Your task to perform on an android device: Open calendar and show me the fourth week of next month Image 0: 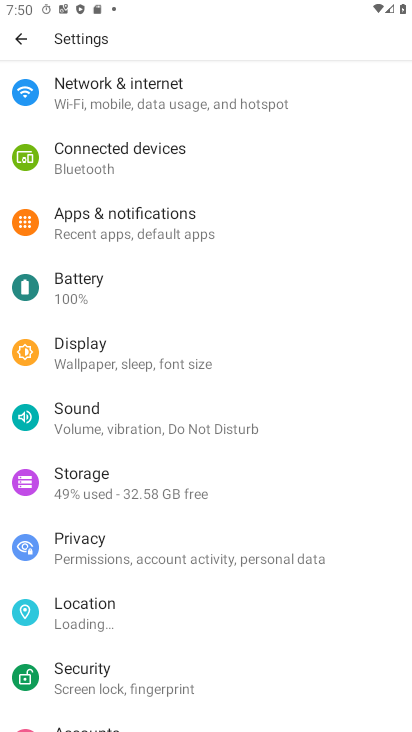
Step 0: press home button
Your task to perform on an android device: Open calendar and show me the fourth week of next month Image 1: 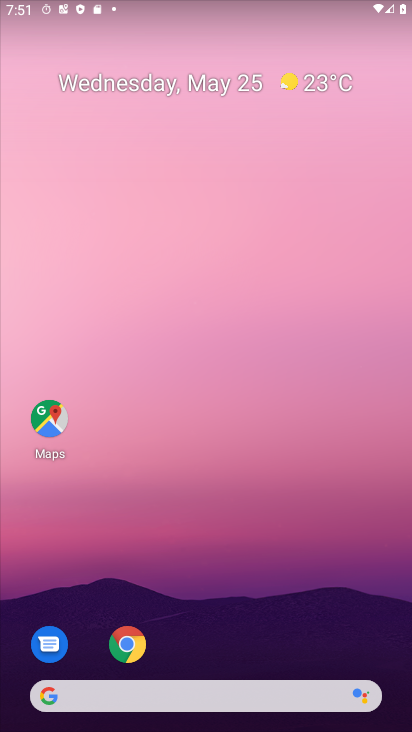
Step 1: drag from (229, 695) to (318, 149)
Your task to perform on an android device: Open calendar and show me the fourth week of next month Image 2: 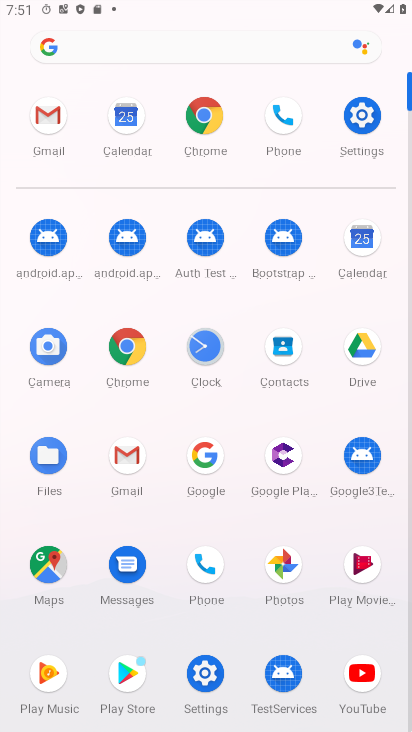
Step 2: click (353, 251)
Your task to perform on an android device: Open calendar and show me the fourth week of next month Image 3: 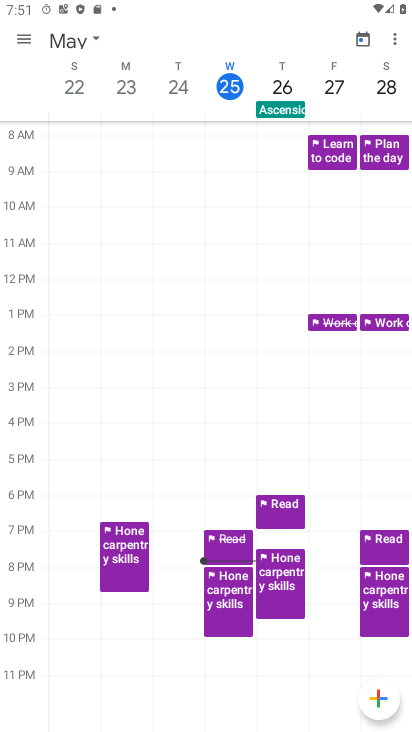
Step 3: click (22, 39)
Your task to perform on an android device: Open calendar and show me the fourth week of next month Image 4: 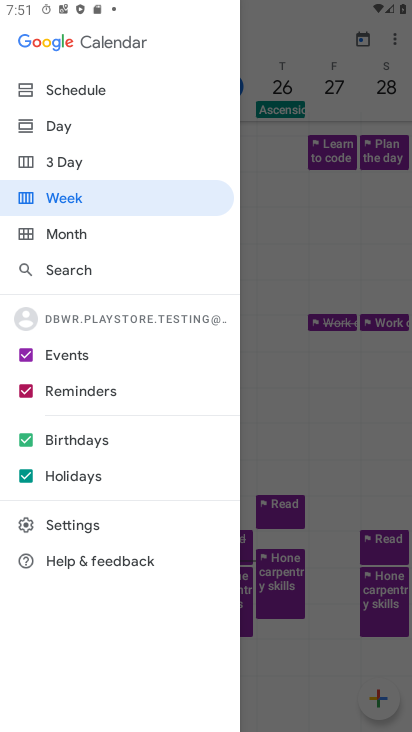
Step 4: click (86, 236)
Your task to perform on an android device: Open calendar and show me the fourth week of next month Image 5: 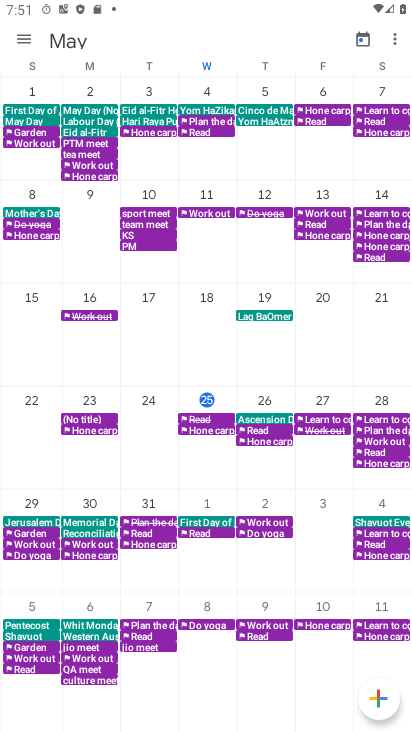
Step 5: drag from (373, 365) to (7, 315)
Your task to perform on an android device: Open calendar and show me the fourth week of next month Image 6: 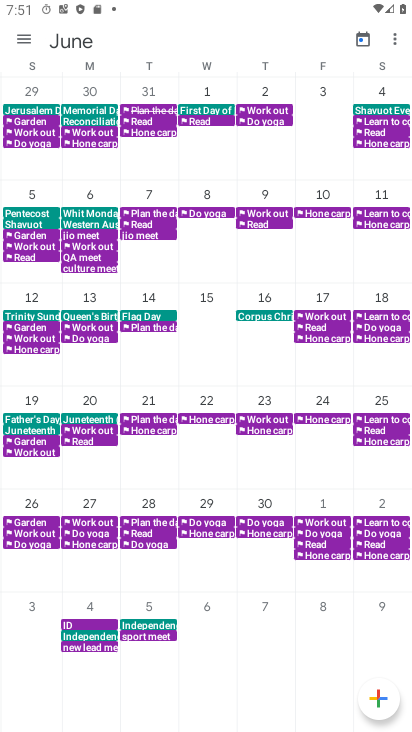
Step 6: click (26, 404)
Your task to perform on an android device: Open calendar and show me the fourth week of next month Image 7: 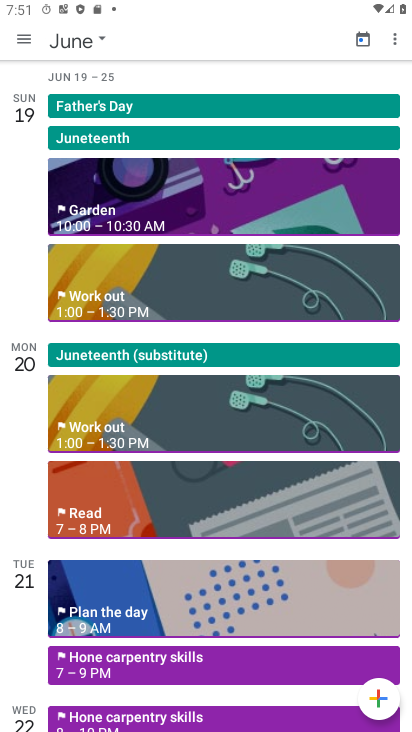
Step 7: task complete